Your task to perform on an android device: Open the calendar and show me this week's events? Image 0: 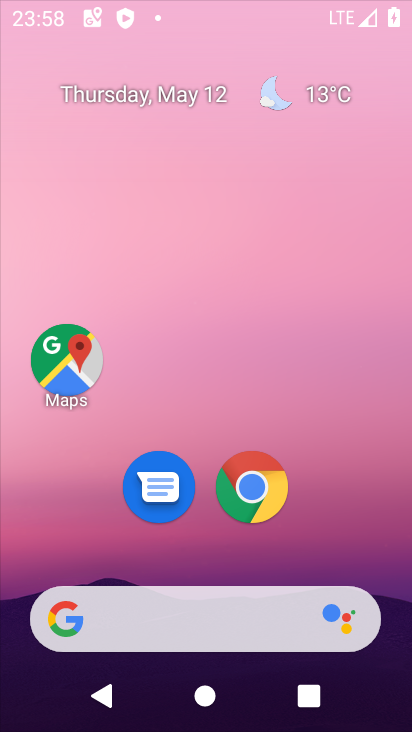
Step 0: drag from (236, 45) to (353, 0)
Your task to perform on an android device: Open the calendar and show me this week's events? Image 1: 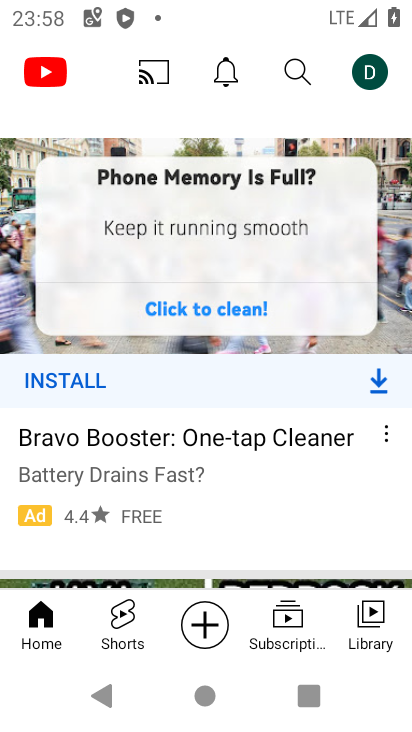
Step 1: press home button
Your task to perform on an android device: Open the calendar and show me this week's events? Image 2: 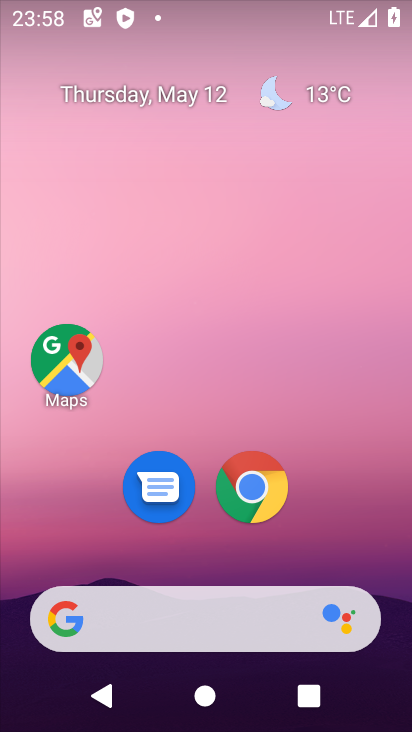
Step 2: click (152, 105)
Your task to perform on an android device: Open the calendar and show me this week's events? Image 3: 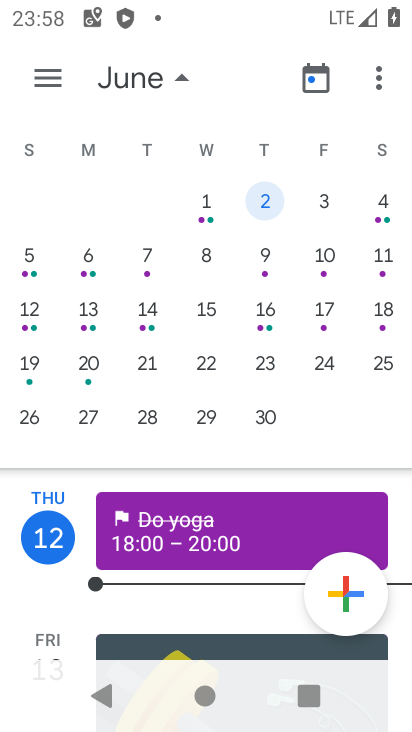
Step 3: task complete